Your task to perform on an android device: set an alarm Image 0: 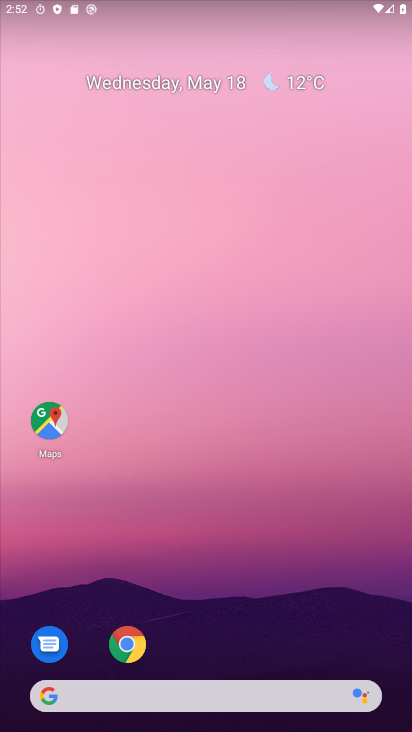
Step 0: drag from (390, 678) to (366, 338)
Your task to perform on an android device: set an alarm Image 1: 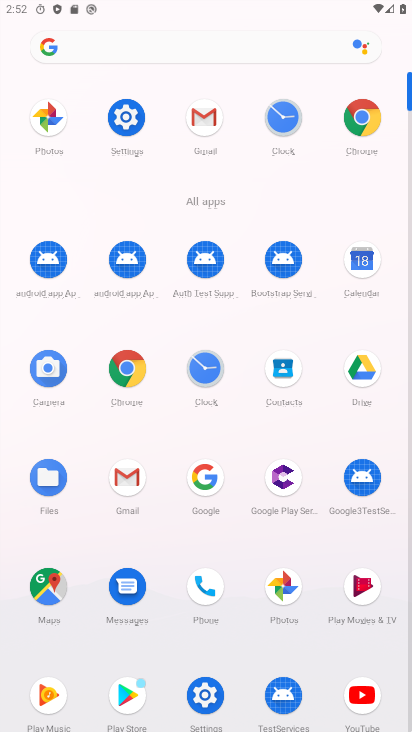
Step 1: click (129, 131)
Your task to perform on an android device: set an alarm Image 2: 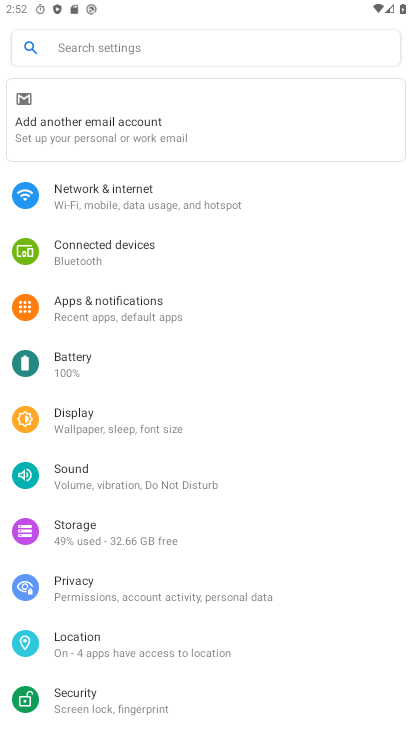
Step 2: press back button
Your task to perform on an android device: set an alarm Image 3: 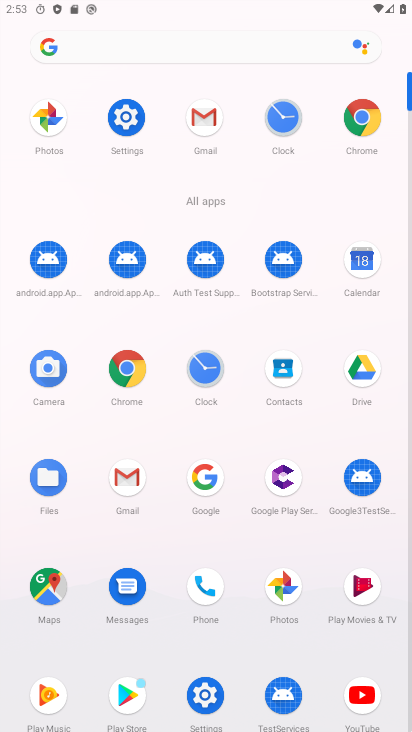
Step 3: click (278, 119)
Your task to perform on an android device: set an alarm Image 4: 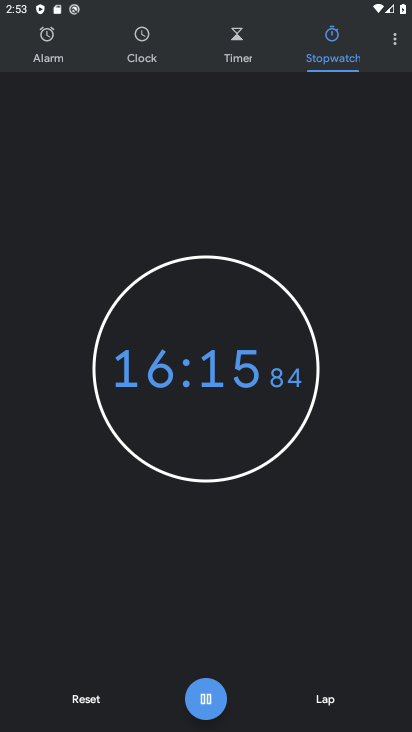
Step 4: click (43, 45)
Your task to perform on an android device: set an alarm Image 5: 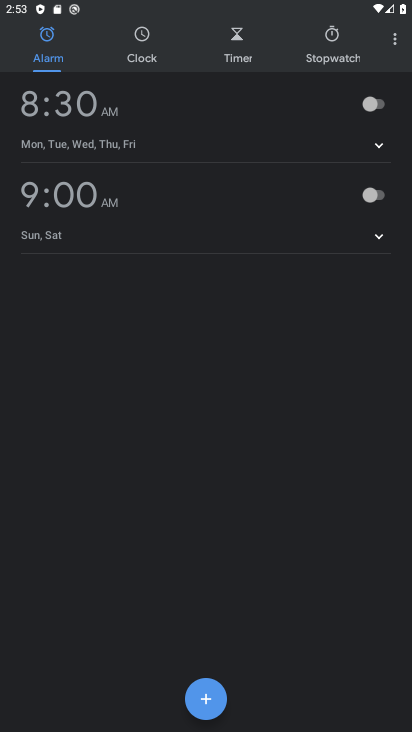
Step 5: click (382, 109)
Your task to perform on an android device: set an alarm Image 6: 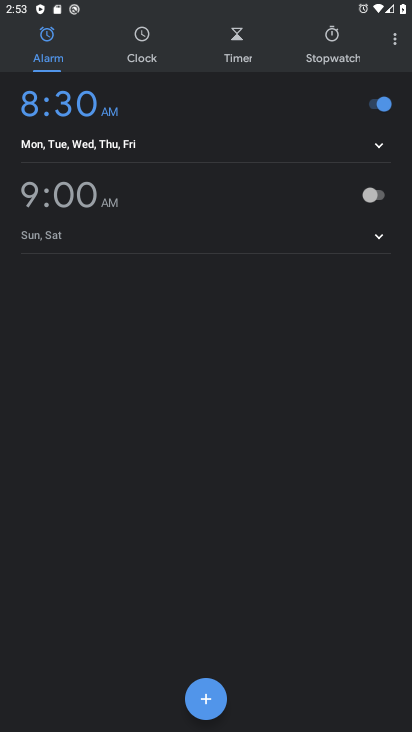
Step 6: task complete